Your task to perform on an android device: Go to privacy settings Image 0: 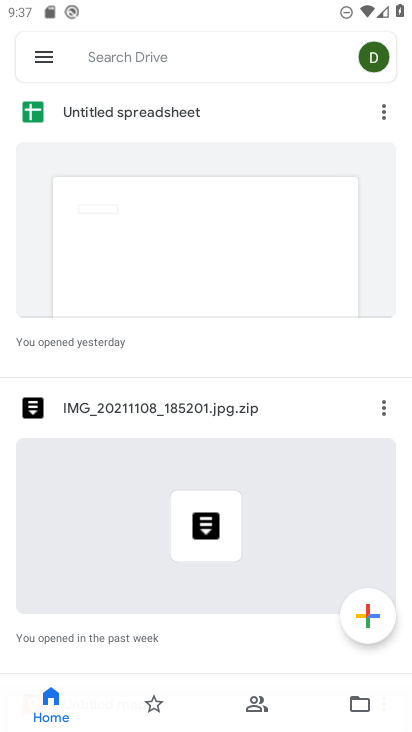
Step 0: press home button
Your task to perform on an android device: Go to privacy settings Image 1: 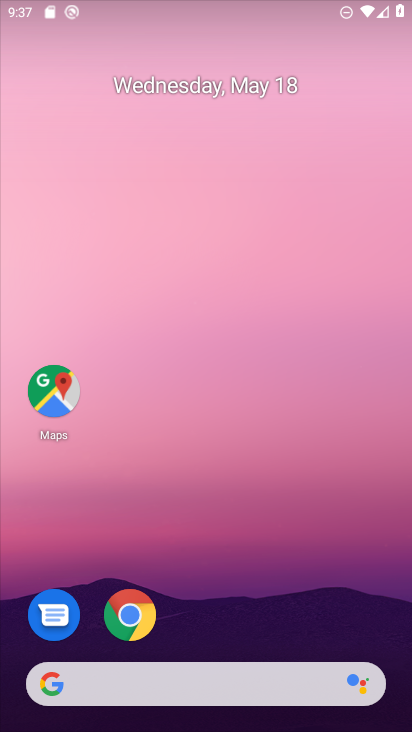
Step 1: click (203, 604)
Your task to perform on an android device: Go to privacy settings Image 2: 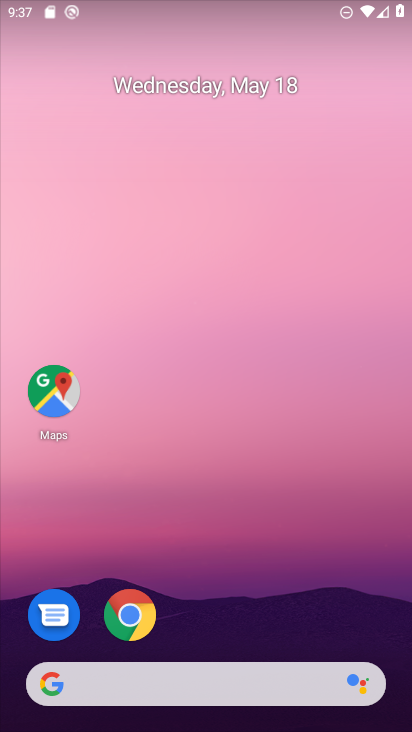
Step 2: drag from (212, 584) to (253, 89)
Your task to perform on an android device: Go to privacy settings Image 3: 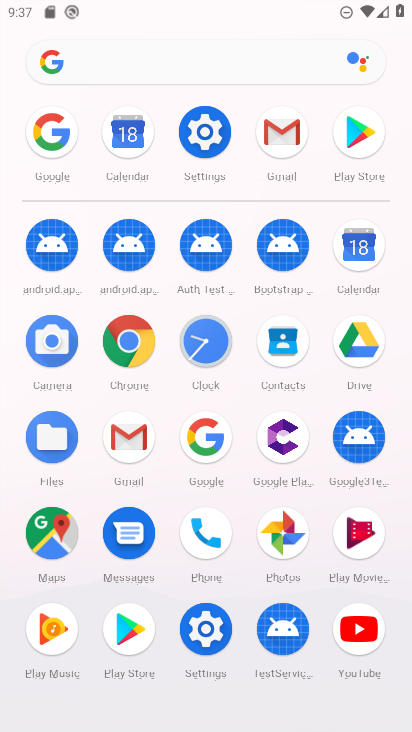
Step 3: click (208, 129)
Your task to perform on an android device: Go to privacy settings Image 4: 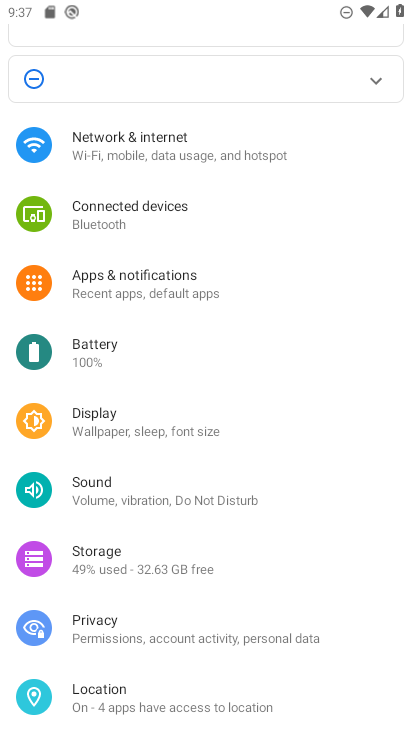
Step 4: drag from (194, 586) to (203, 430)
Your task to perform on an android device: Go to privacy settings Image 5: 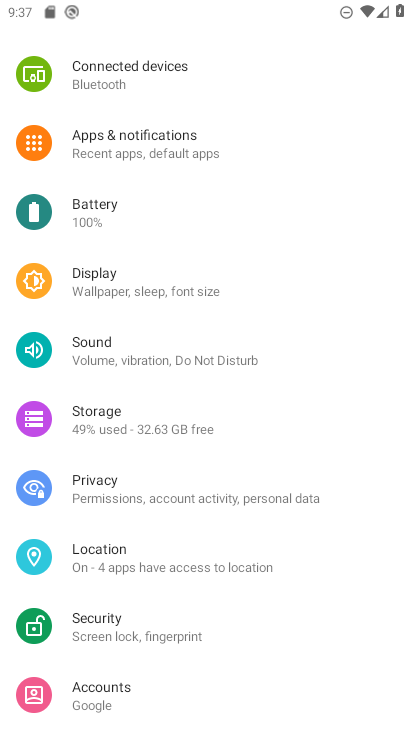
Step 5: click (142, 487)
Your task to perform on an android device: Go to privacy settings Image 6: 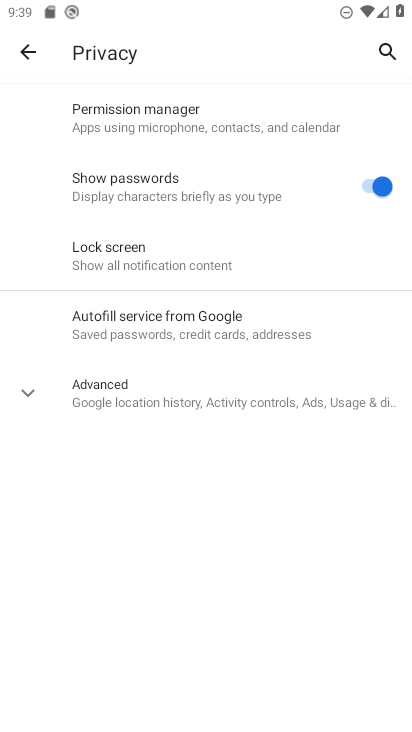
Step 6: task complete